Your task to perform on an android device: Open Reddit.com Image 0: 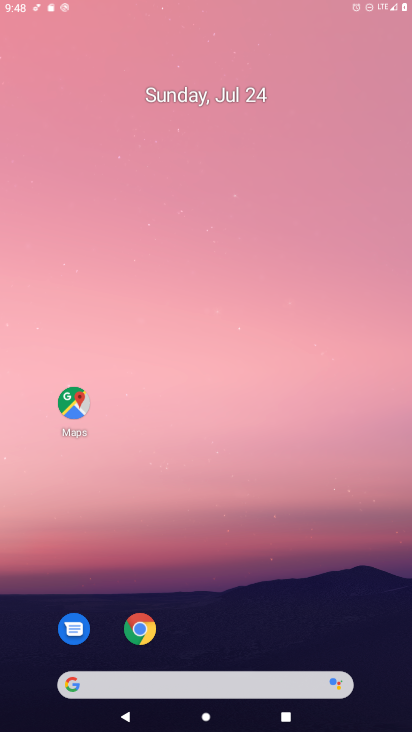
Step 0: drag from (323, 500) to (185, 8)
Your task to perform on an android device: Open Reddit.com Image 1: 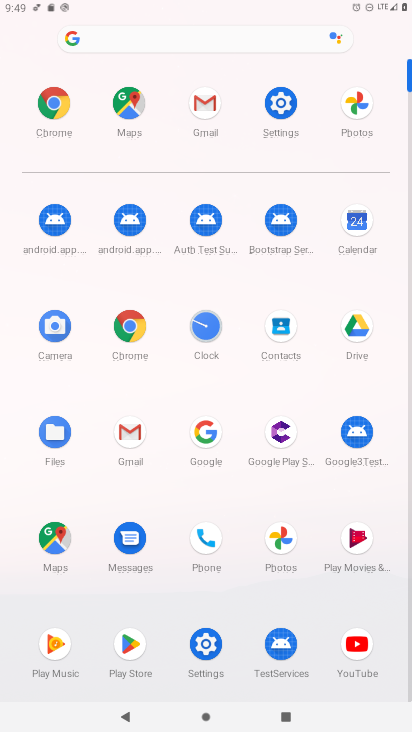
Step 1: click (205, 431)
Your task to perform on an android device: Open Reddit.com Image 2: 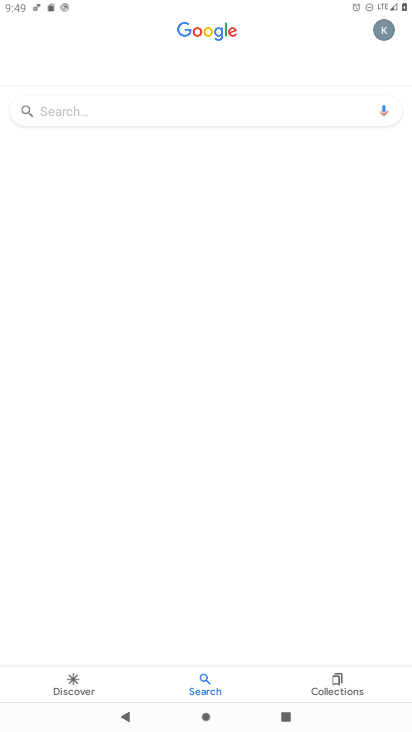
Step 2: click (96, 112)
Your task to perform on an android device: Open Reddit.com Image 3: 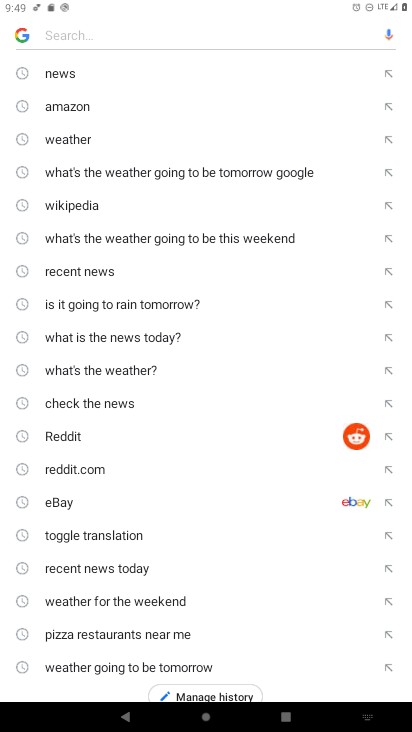
Step 3: click (101, 472)
Your task to perform on an android device: Open Reddit.com Image 4: 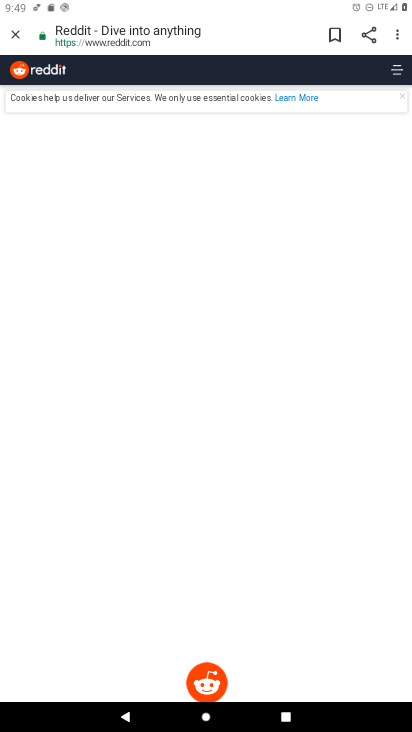
Step 4: task complete